Your task to perform on an android device: Open ESPN.com Image 0: 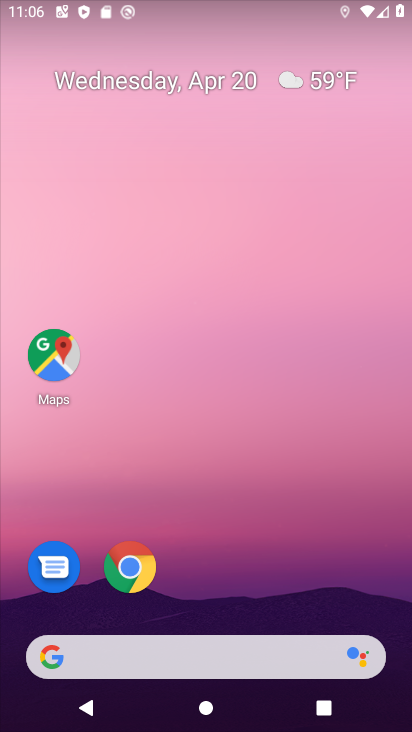
Step 0: click (144, 565)
Your task to perform on an android device: Open ESPN.com Image 1: 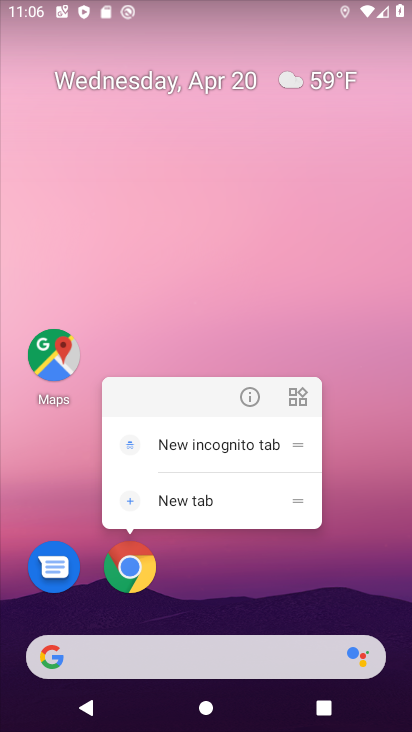
Step 1: click (136, 567)
Your task to perform on an android device: Open ESPN.com Image 2: 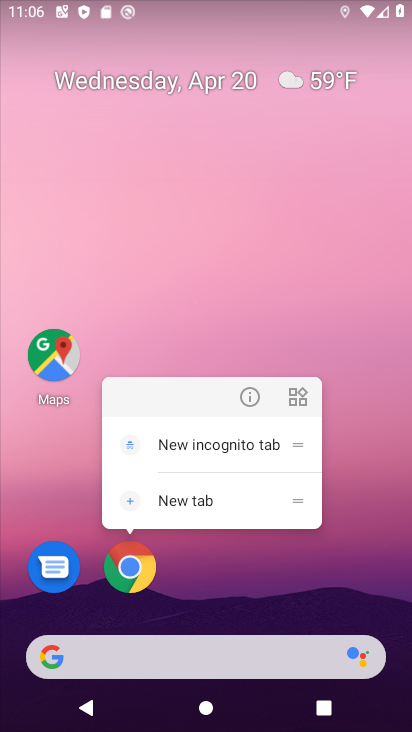
Step 2: click (132, 564)
Your task to perform on an android device: Open ESPN.com Image 3: 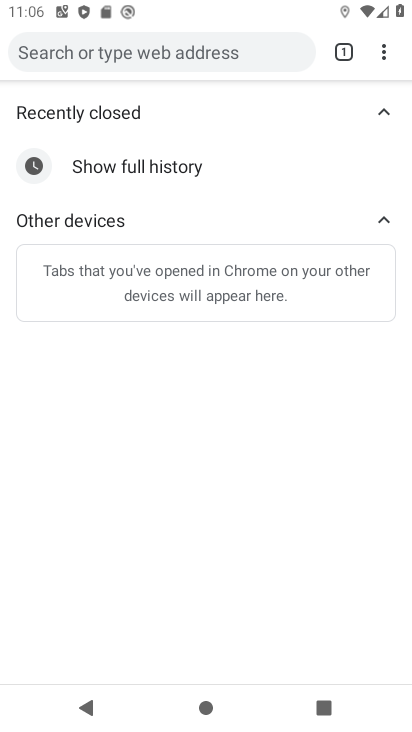
Step 3: click (238, 46)
Your task to perform on an android device: Open ESPN.com Image 4: 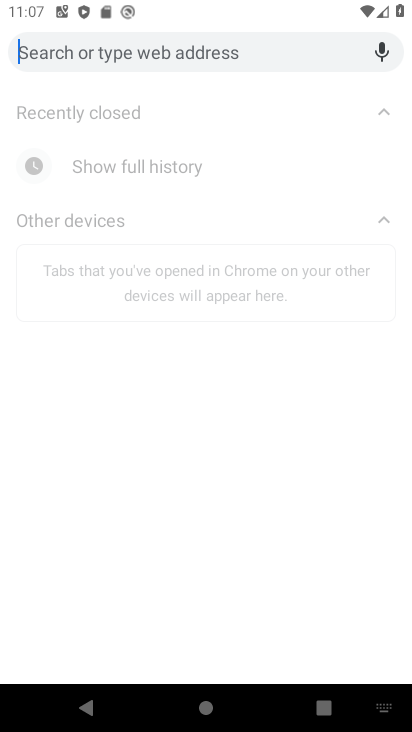
Step 4: type "ESPN.com"
Your task to perform on an android device: Open ESPN.com Image 5: 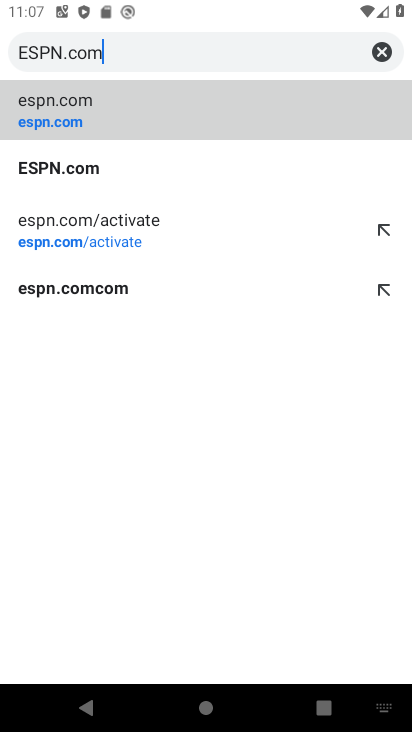
Step 5: click (23, 114)
Your task to perform on an android device: Open ESPN.com Image 6: 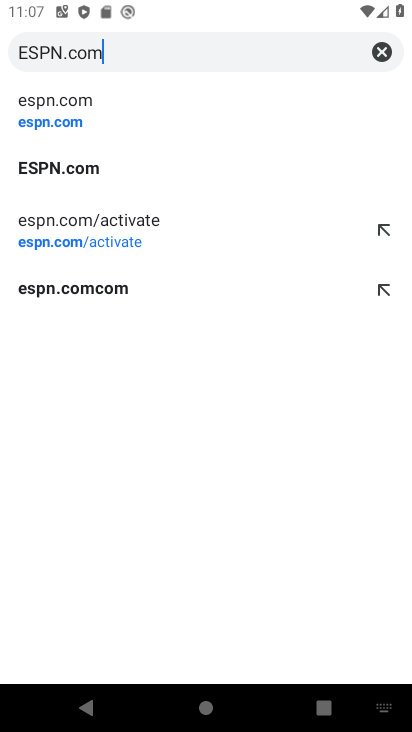
Step 6: click (24, 113)
Your task to perform on an android device: Open ESPN.com Image 7: 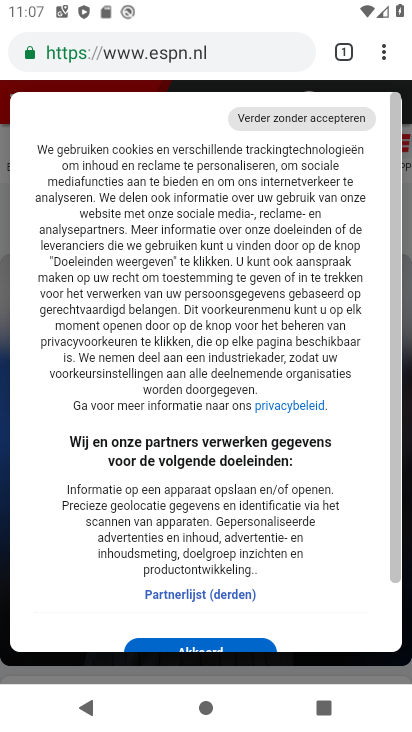
Step 7: task complete